Your task to perform on an android device: Go to battery settings Image 0: 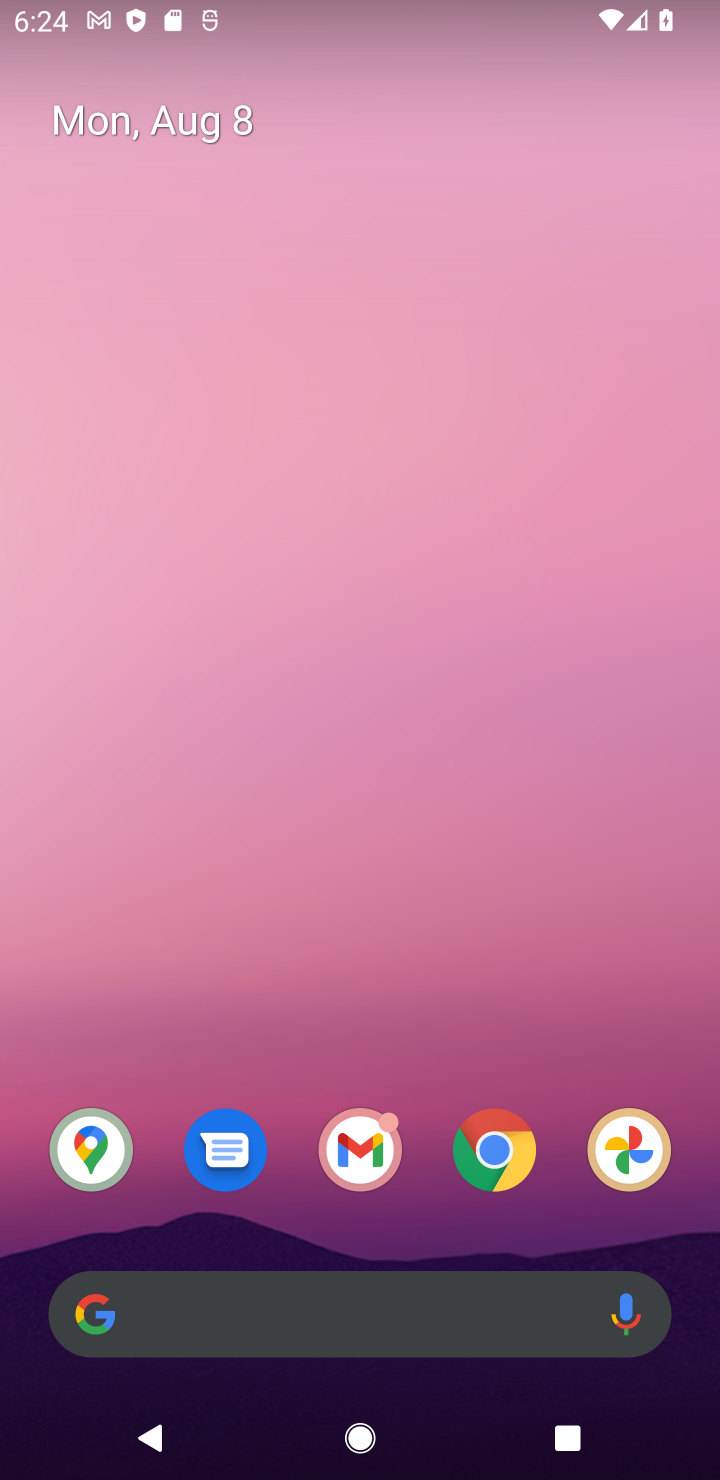
Step 0: drag from (438, 1251) to (403, 156)
Your task to perform on an android device: Go to battery settings Image 1: 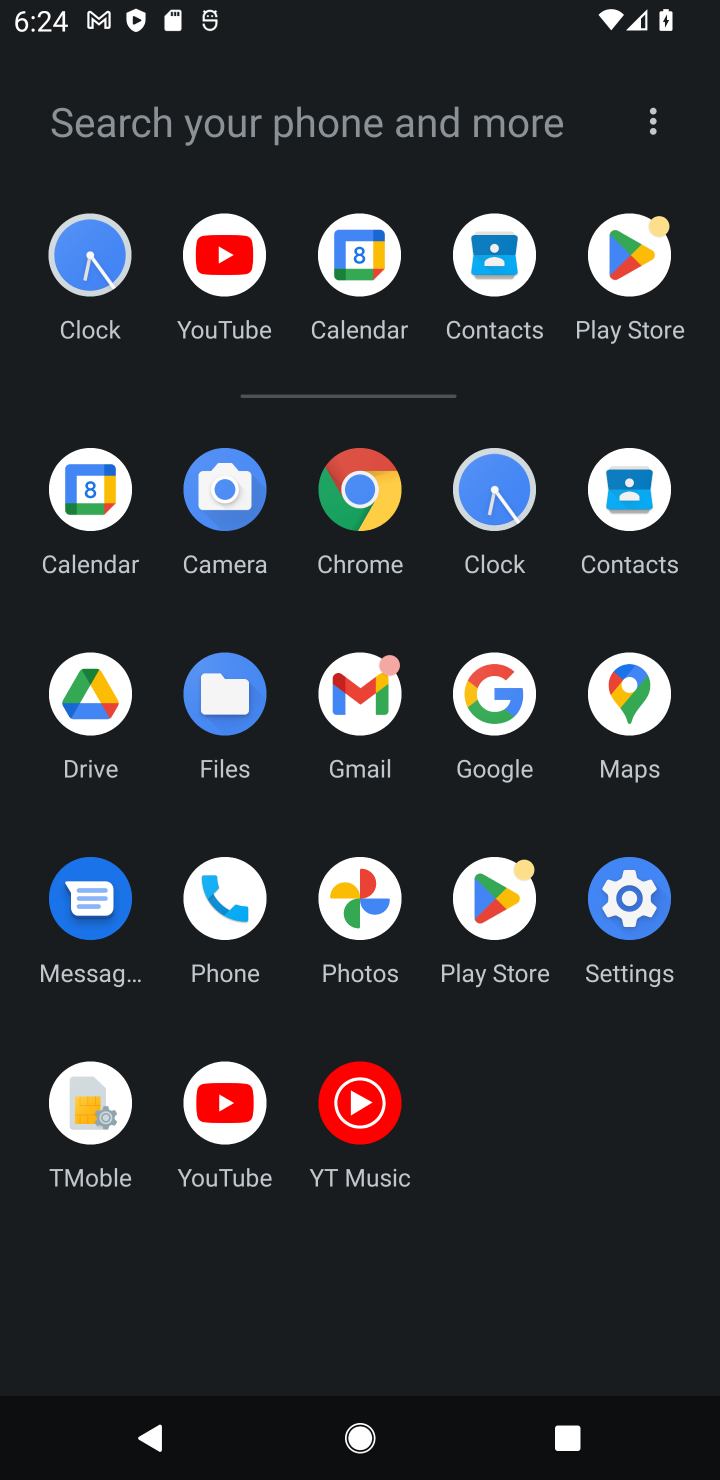
Step 1: click (631, 920)
Your task to perform on an android device: Go to battery settings Image 2: 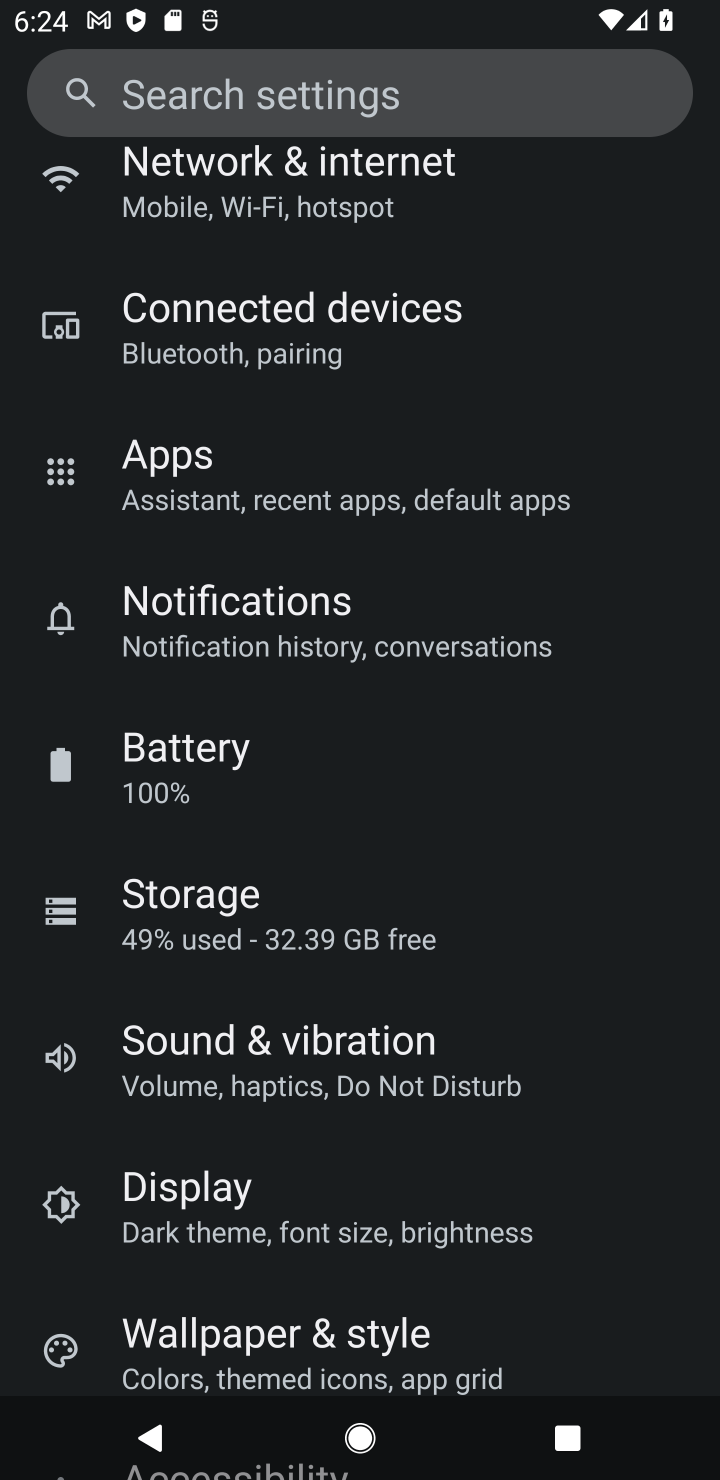
Step 2: click (447, 808)
Your task to perform on an android device: Go to battery settings Image 3: 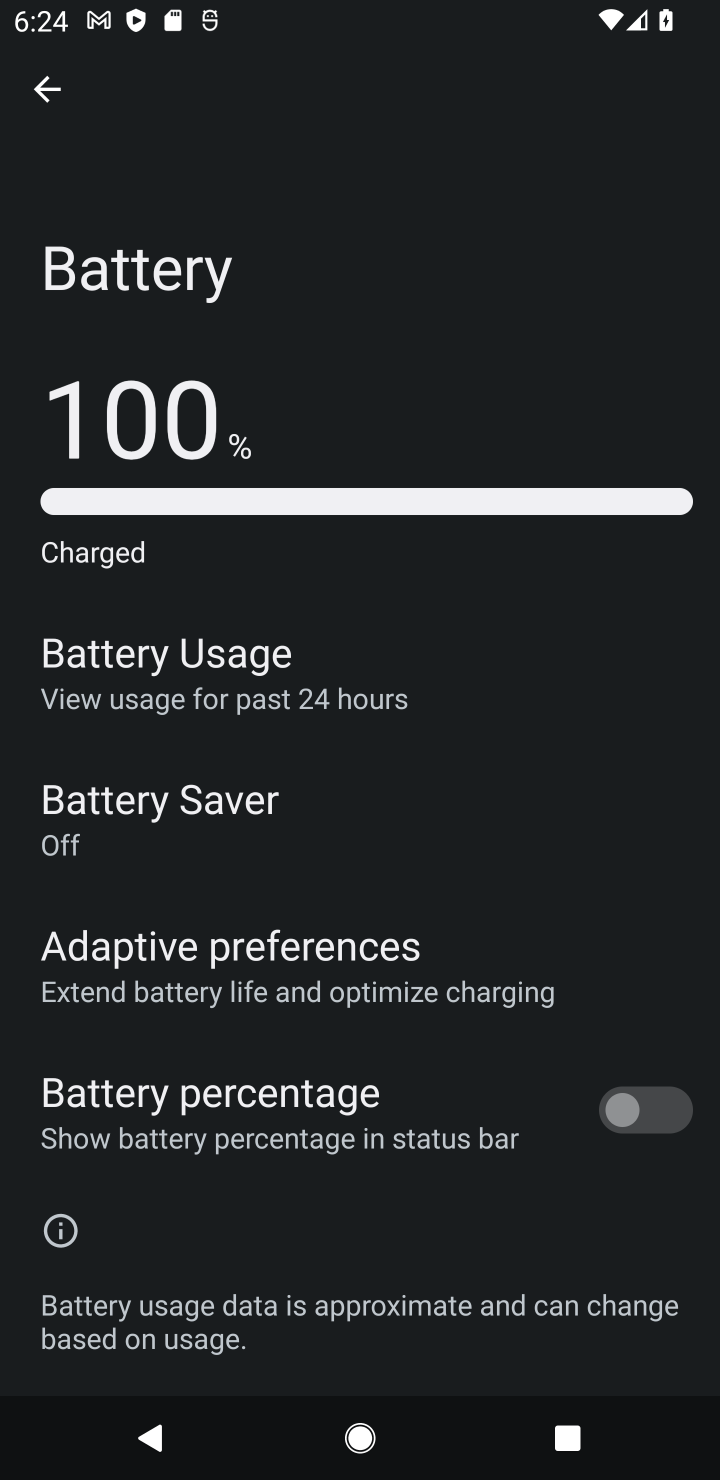
Step 3: task complete